Your task to perform on an android device: toggle airplane mode Image 0: 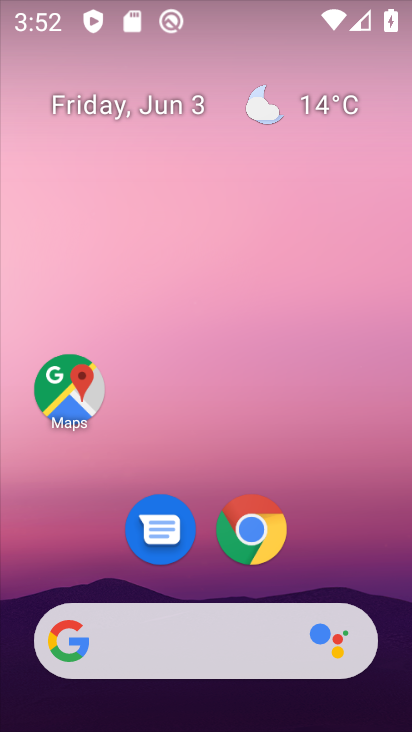
Step 0: press home button
Your task to perform on an android device: toggle airplane mode Image 1: 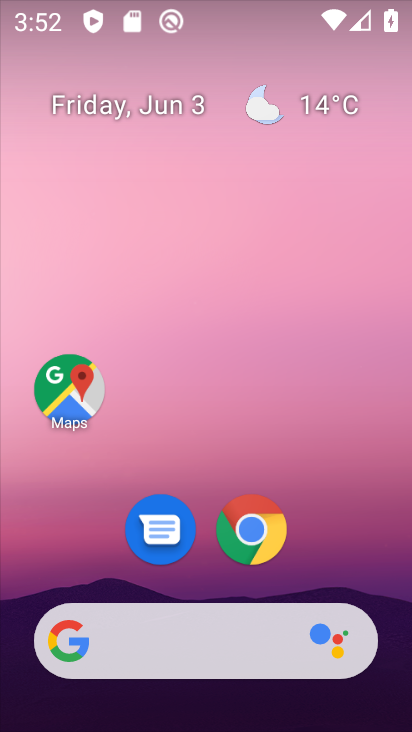
Step 1: drag from (255, 12) to (272, 523)
Your task to perform on an android device: toggle airplane mode Image 2: 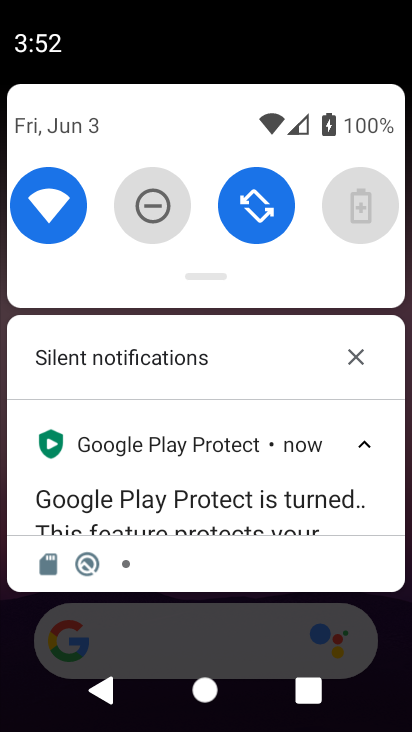
Step 2: drag from (218, 276) to (234, 661)
Your task to perform on an android device: toggle airplane mode Image 3: 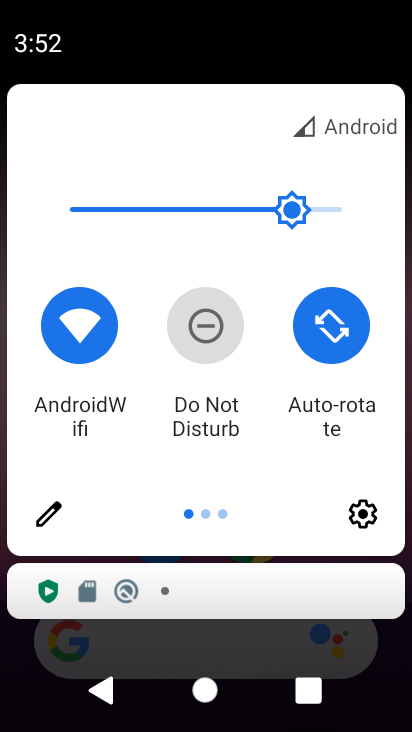
Step 3: drag from (367, 357) to (57, 361)
Your task to perform on an android device: toggle airplane mode Image 4: 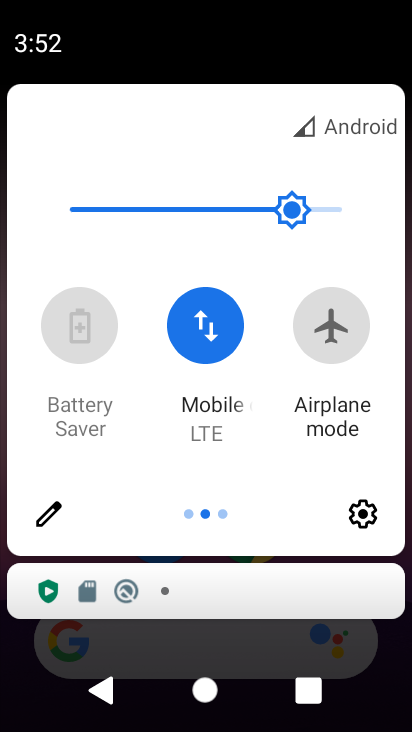
Step 4: click (325, 334)
Your task to perform on an android device: toggle airplane mode Image 5: 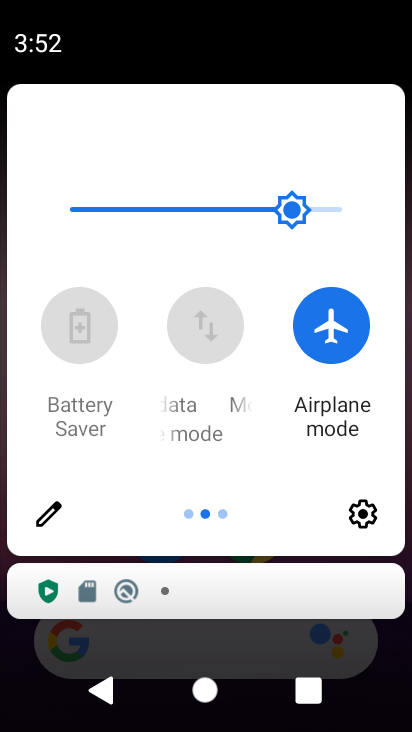
Step 5: task complete